Your task to perform on an android device: Go to sound settings Image 0: 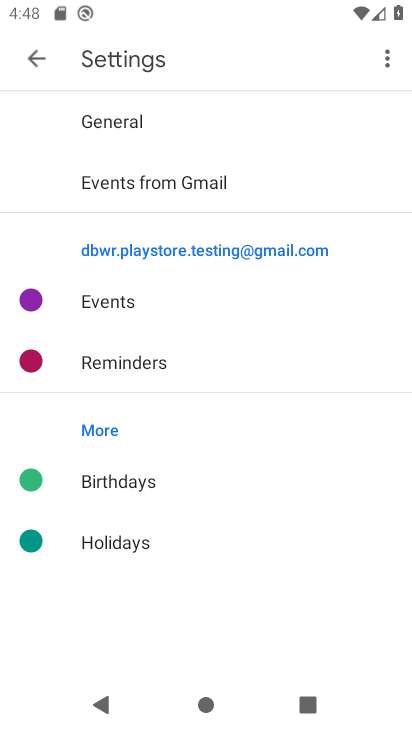
Step 0: press back button
Your task to perform on an android device: Go to sound settings Image 1: 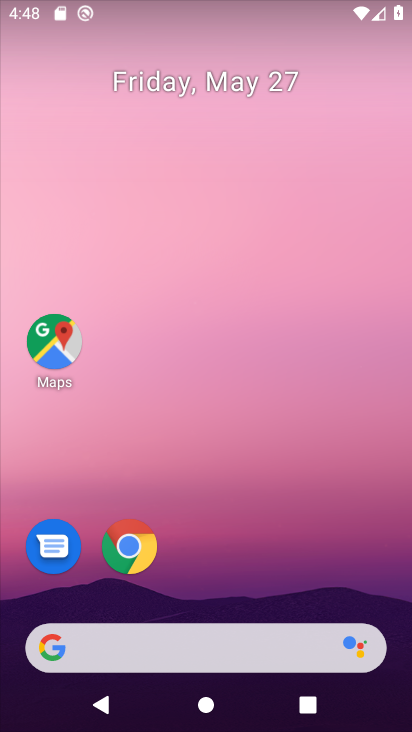
Step 1: drag from (210, 556) to (277, 30)
Your task to perform on an android device: Go to sound settings Image 2: 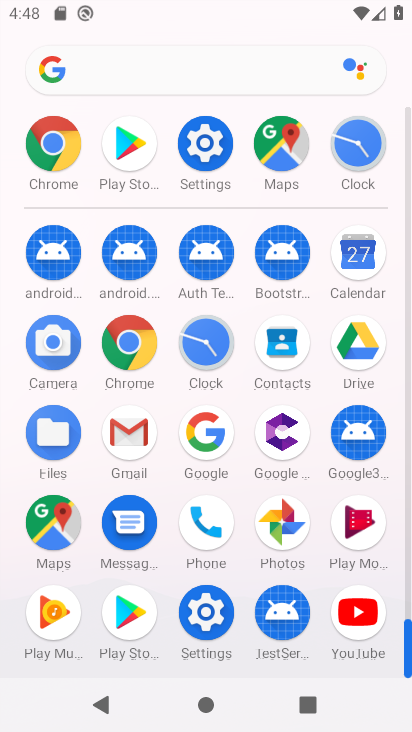
Step 2: drag from (3, 583) to (13, 323)
Your task to perform on an android device: Go to sound settings Image 3: 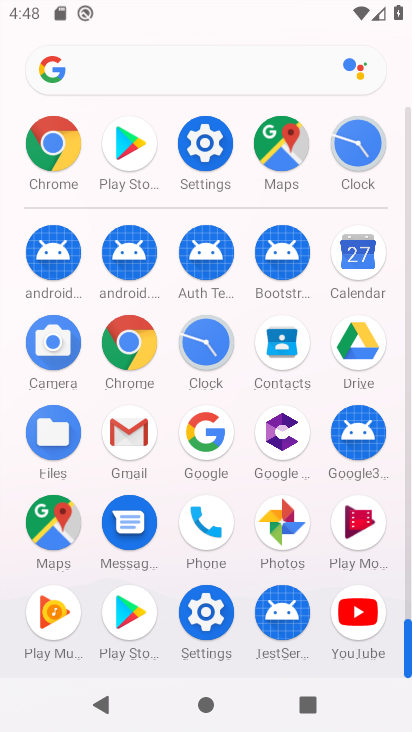
Step 3: click (205, 615)
Your task to perform on an android device: Go to sound settings Image 4: 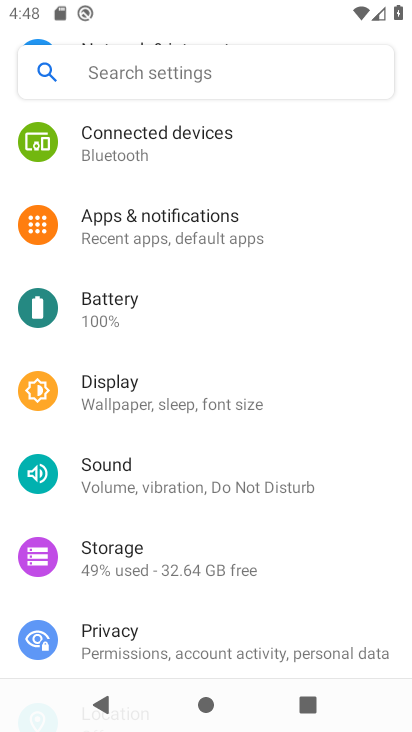
Step 4: click (138, 466)
Your task to perform on an android device: Go to sound settings Image 5: 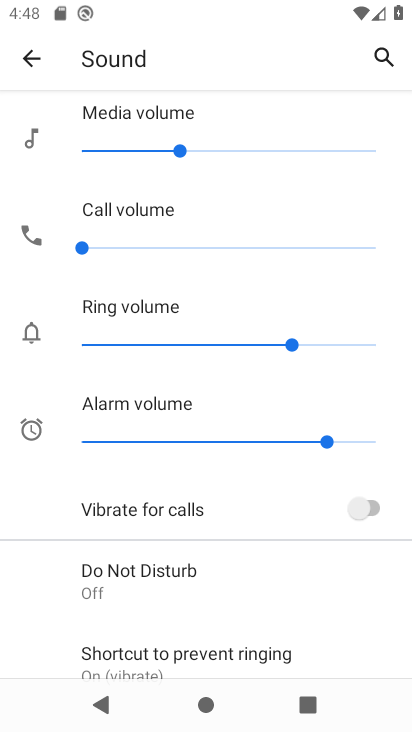
Step 5: drag from (239, 677) to (249, 214)
Your task to perform on an android device: Go to sound settings Image 6: 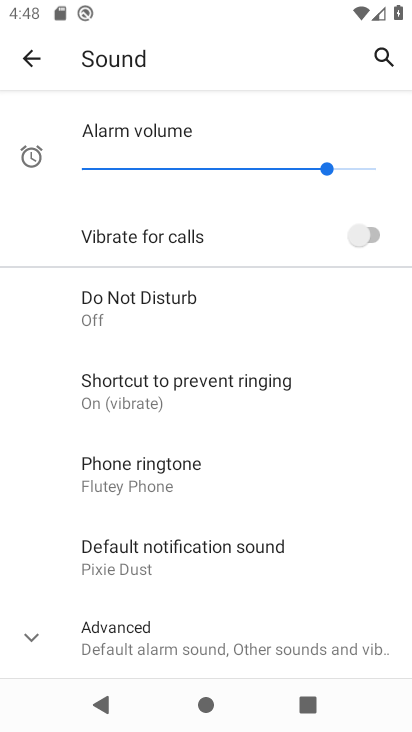
Step 6: click (33, 648)
Your task to perform on an android device: Go to sound settings Image 7: 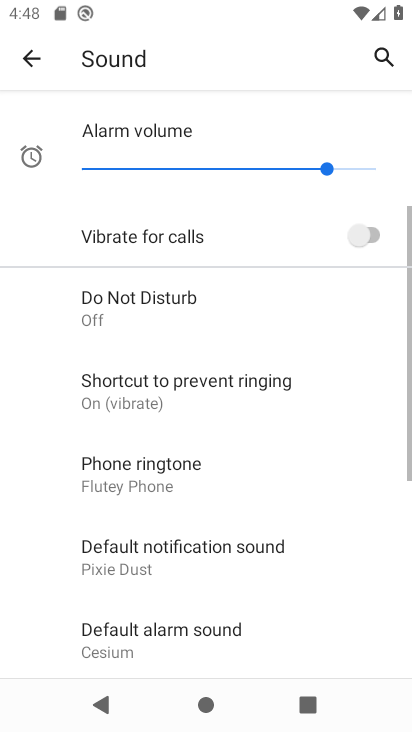
Step 7: task complete